Your task to perform on an android device: Open Youtube and go to the subscriptions tab Image 0: 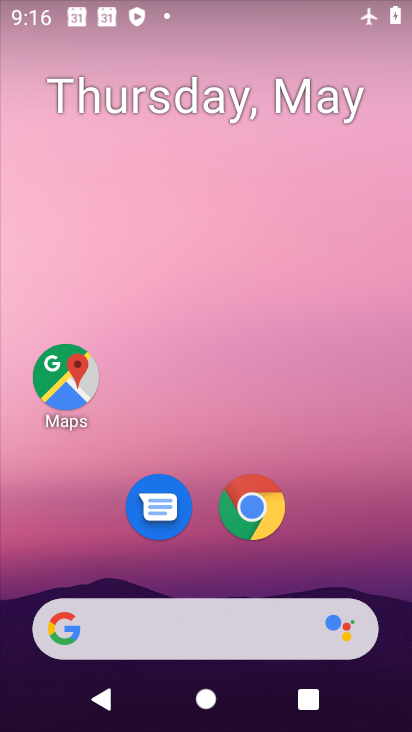
Step 0: drag from (240, 516) to (250, 154)
Your task to perform on an android device: Open Youtube and go to the subscriptions tab Image 1: 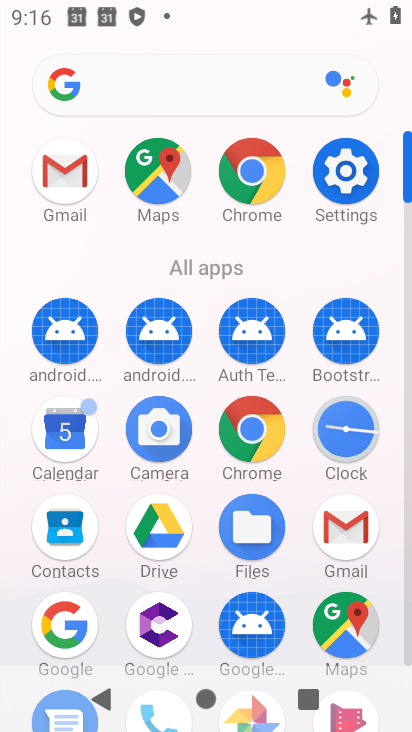
Step 1: click (404, 545)
Your task to perform on an android device: Open Youtube and go to the subscriptions tab Image 2: 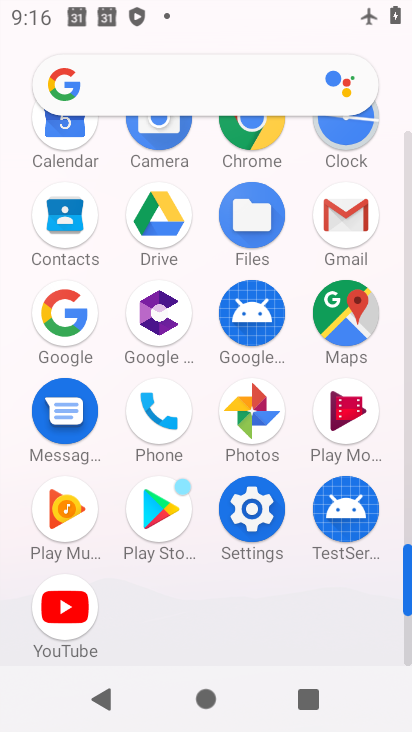
Step 2: click (88, 604)
Your task to perform on an android device: Open Youtube and go to the subscriptions tab Image 3: 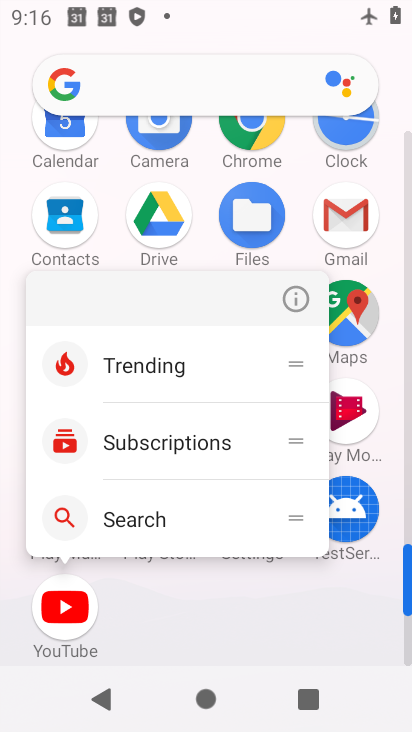
Step 3: click (69, 629)
Your task to perform on an android device: Open Youtube and go to the subscriptions tab Image 4: 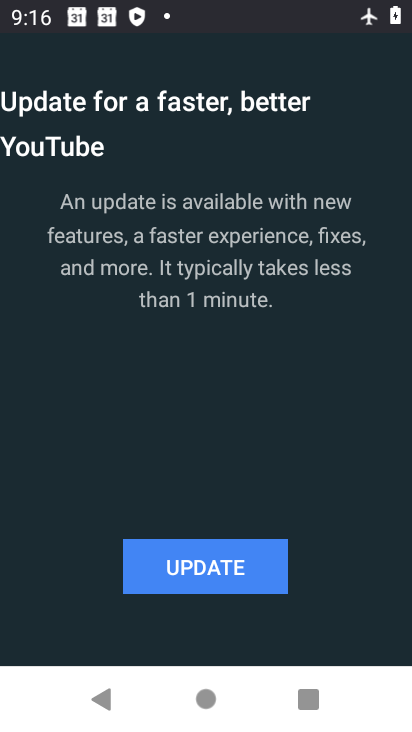
Step 4: click (212, 558)
Your task to perform on an android device: Open Youtube and go to the subscriptions tab Image 5: 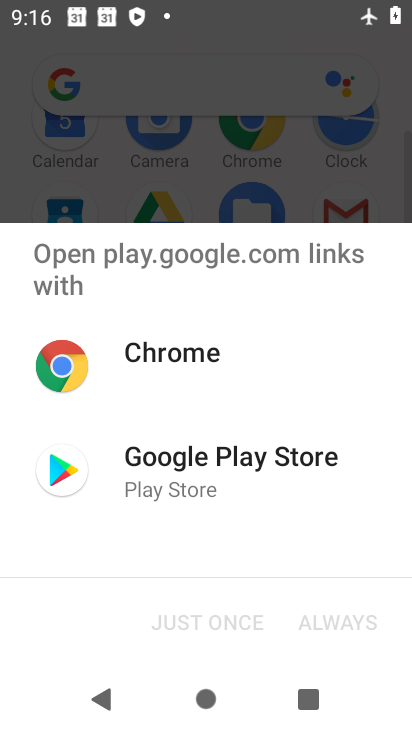
Step 5: click (252, 479)
Your task to perform on an android device: Open Youtube and go to the subscriptions tab Image 6: 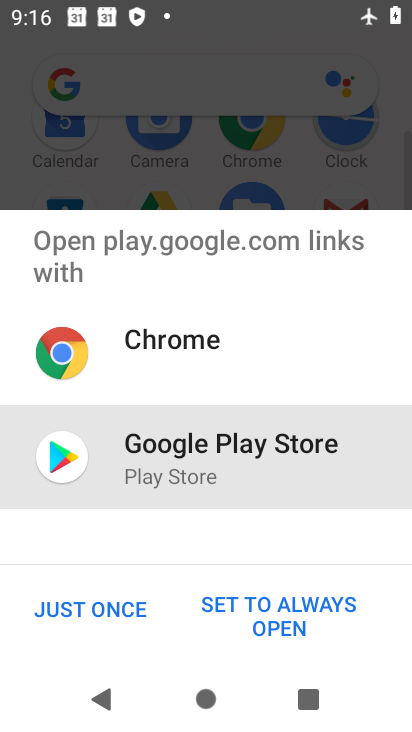
Step 6: click (124, 615)
Your task to perform on an android device: Open Youtube and go to the subscriptions tab Image 7: 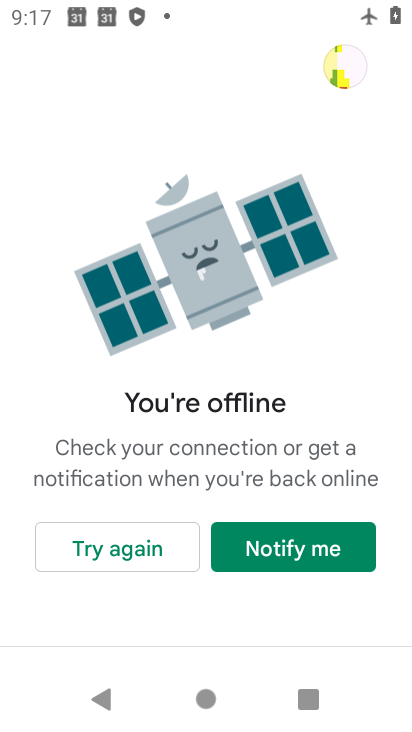
Step 7: task complete